Your task to perform on an android device: turn off translation in the chrome app Image 0: 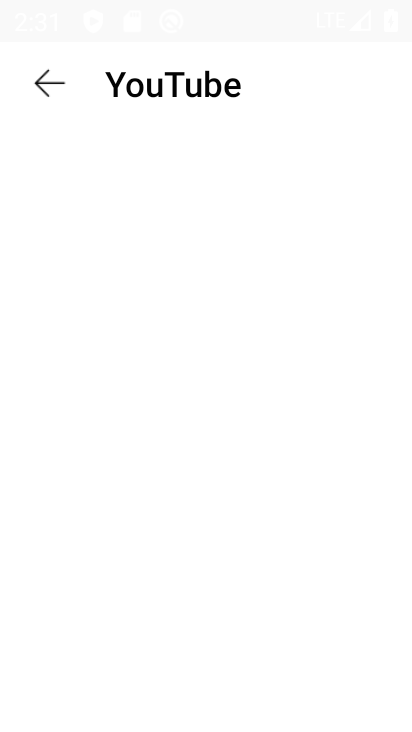
Step 0: click (242, 137)
Your task to perform on an android device: turn off translation in the chrome app Image 1: 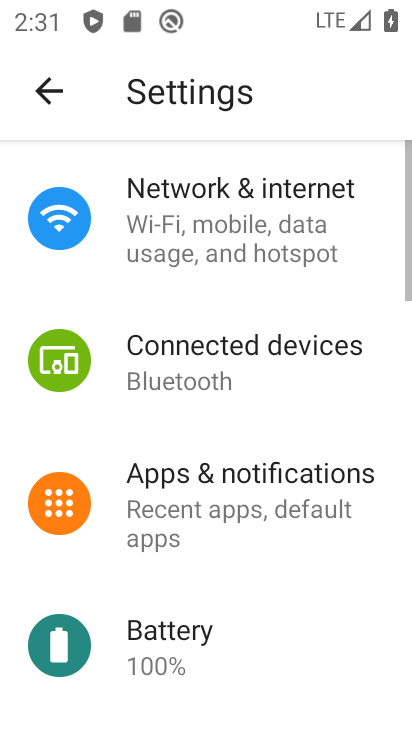
Step 1: press home button
Your task to perform on an android device: turn off translation in the chrome app Image 2: 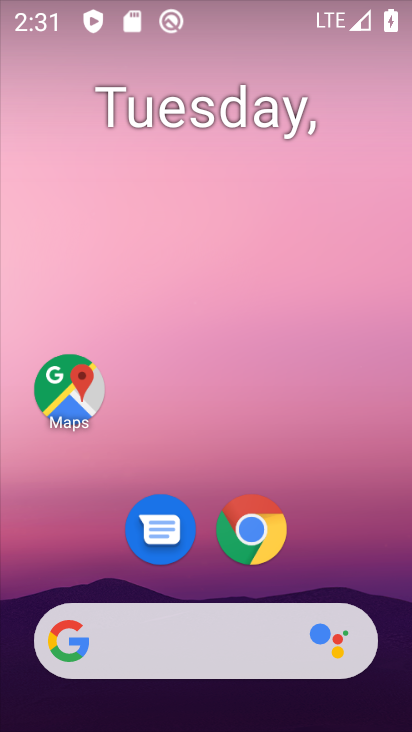
Step 2: drag from (389, 614) to (211, 71)
Your task to perform on an android device: turn off translation in the chrome app Image 3: 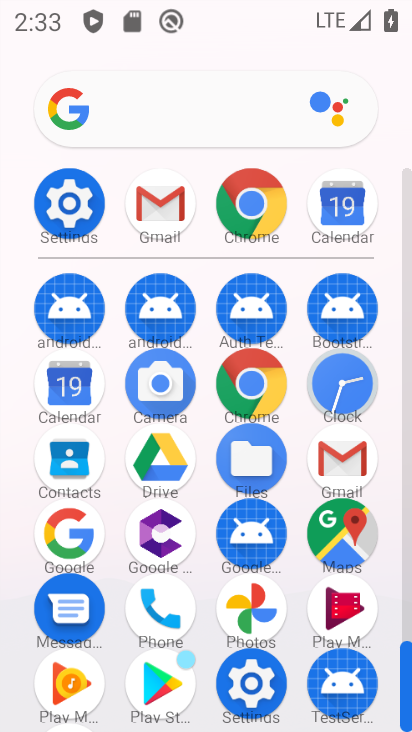
Step 3: click (251, 379)
Your task to perform on an android device: turn off translation in the chrome app Image 4: 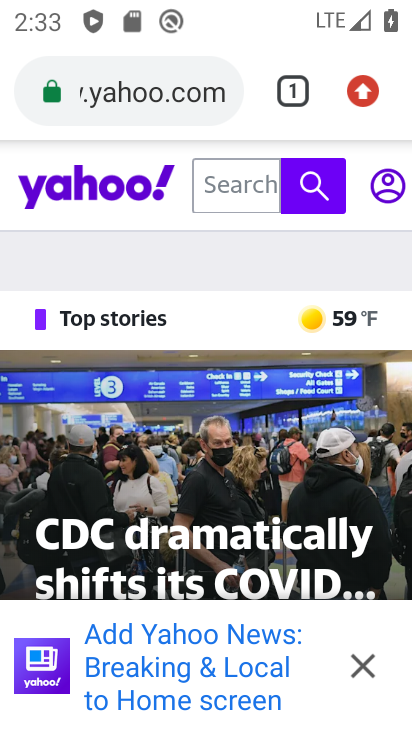
Step 4: press back button
Your task to perform on an android device: turn off translation in the chrome app Image 5: 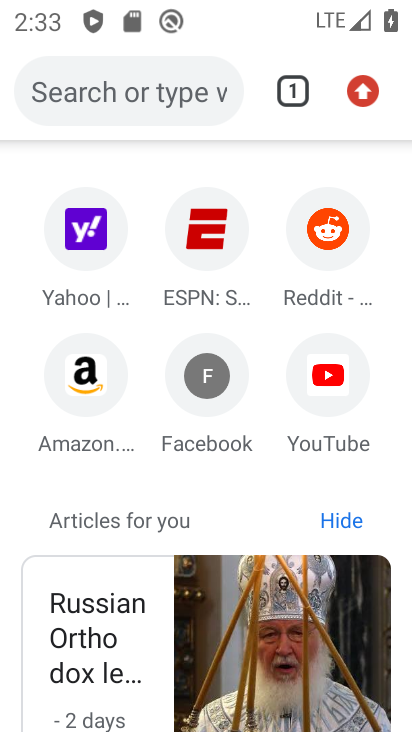
Step 5: click (366, 84)
Your task to perform on an android device: turn off translation in the chrome app Image 6: 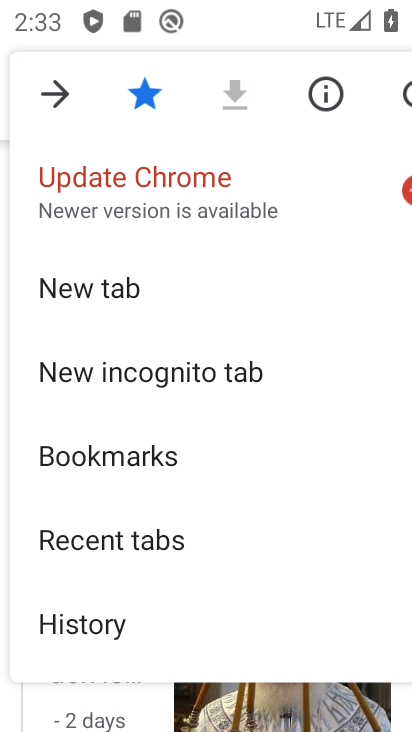
Step 6: drag from (85, 623) to (159, 257)
Your task to perform on an android device: turn off translation in the chrome app Image 7: 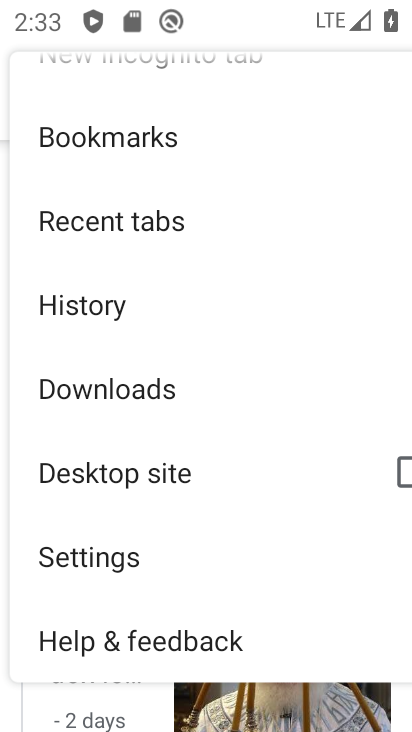
Step 7: click (179, 559)
Your task to perform on an android device: turn off translation in the chrome app Image 8: 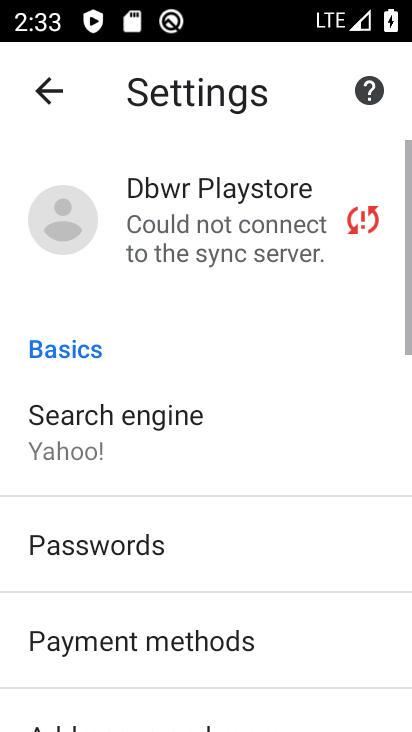
Step 8: drag from (171, 626) to (206, 198)
Your task to perform on an android device: turn off translation in the chrome app Image 9: 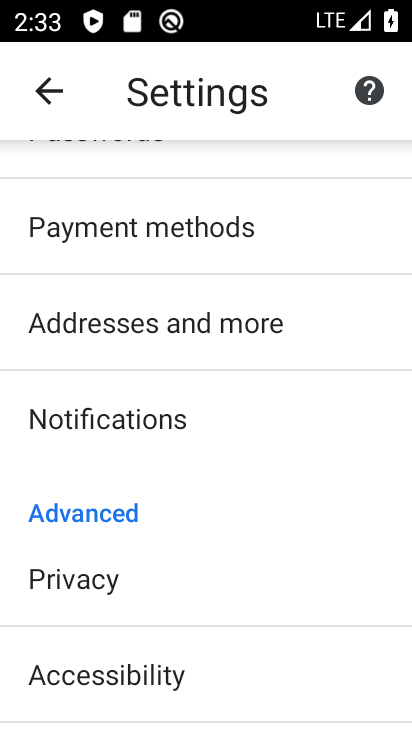
Step 9: drag from (192, 581) to (181, 260)
Your task to perform on an android device: turn off translation in the chrome app Image 10: 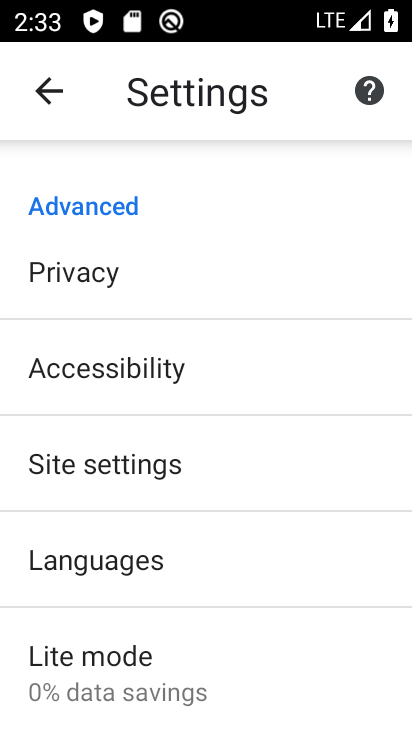
Step 10: click (178, 571)
Your task to perform on an android device: turn off translation in the chrome app Image 11: 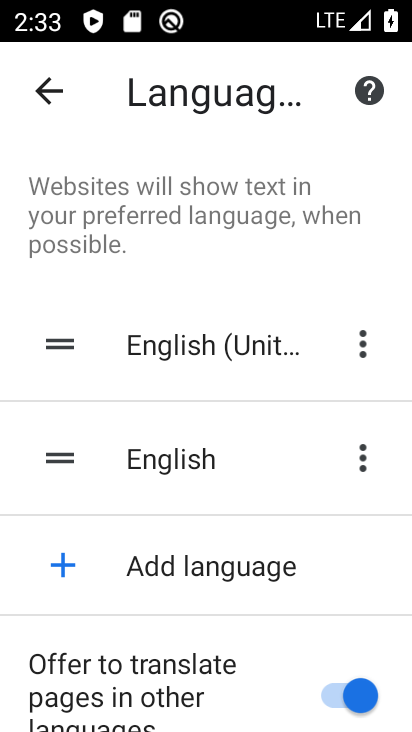
Step 11: click (283, 652)
Your task to perform on an android device: turn off translation in the chrome app Image 12: 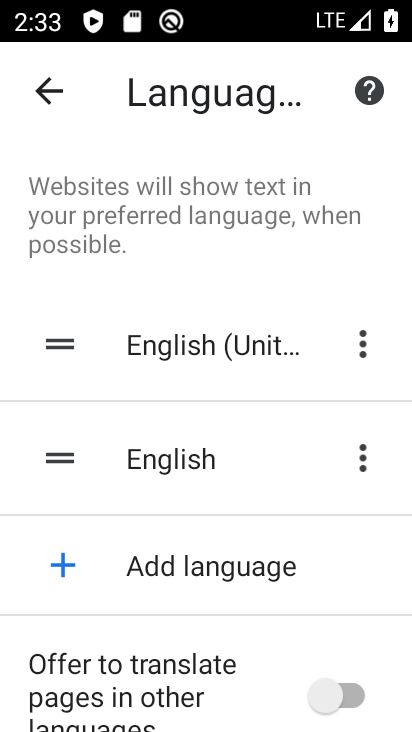
Step 12: task complete